Your task to perform on an android device: open app "HBO Max: Stream TV & Movies" Image 0: 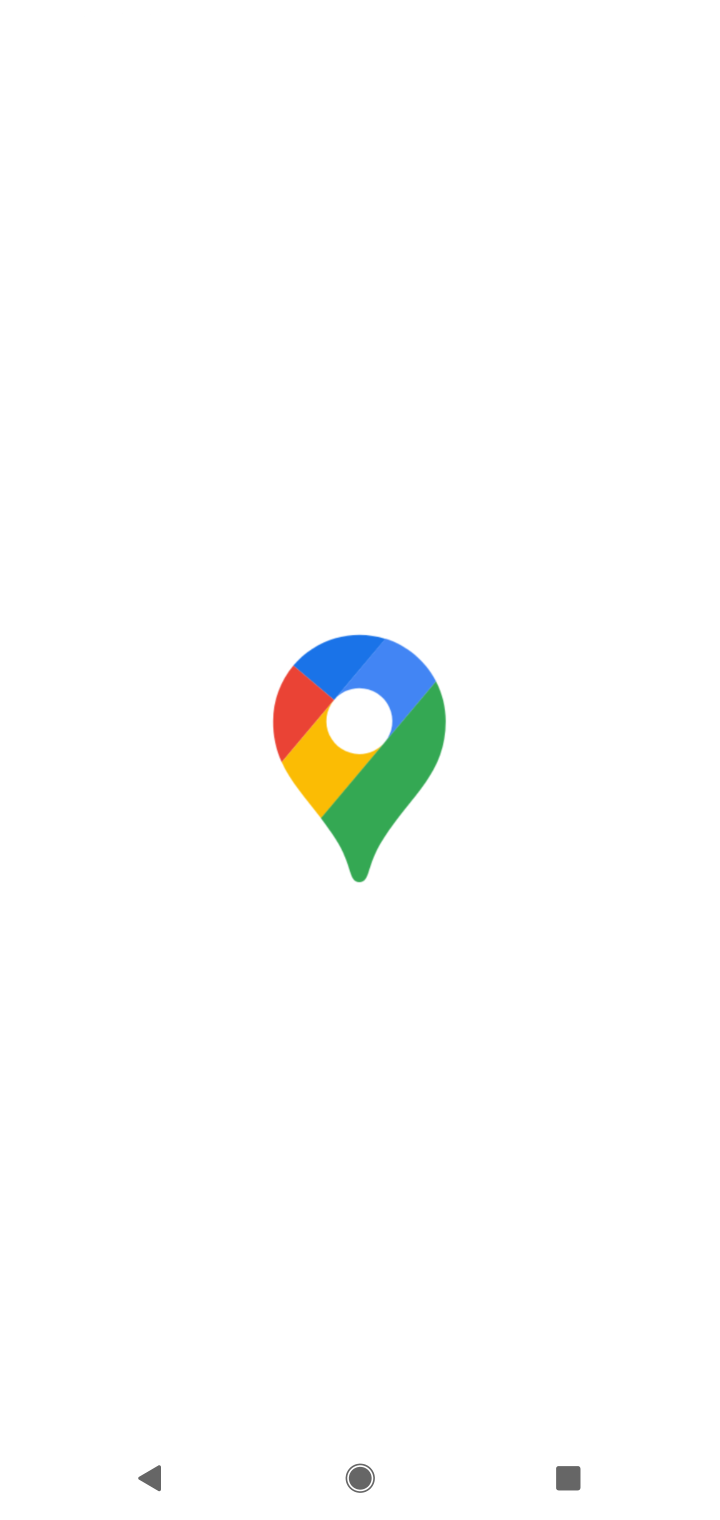
Step 0: press home button
Your task to perform on an android device: open app "HBO Max: Stream TV & Movies" Image 1: 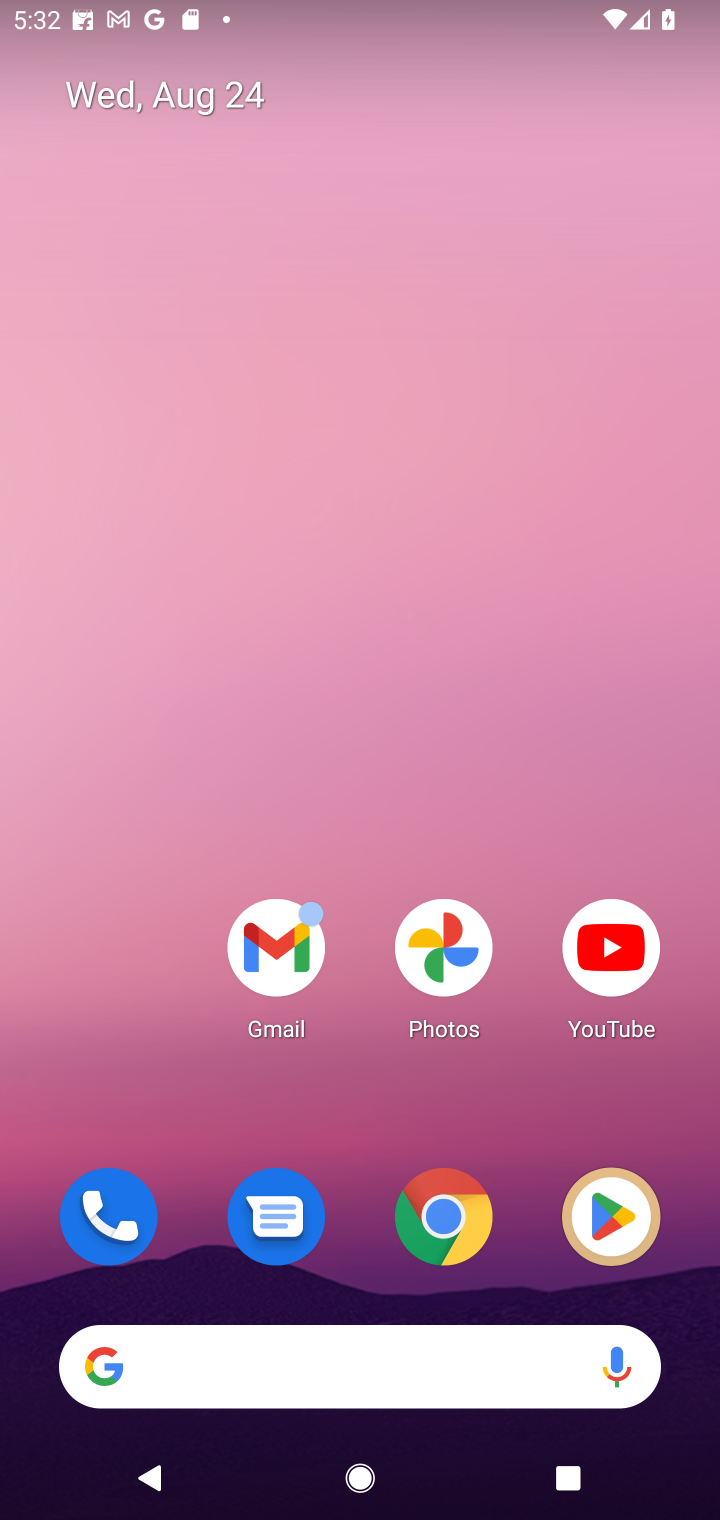
Step 1: click (596, 1198)
Your task to perform on an android device: open app "HBO Max: Stream TV & Movies" Image 2: 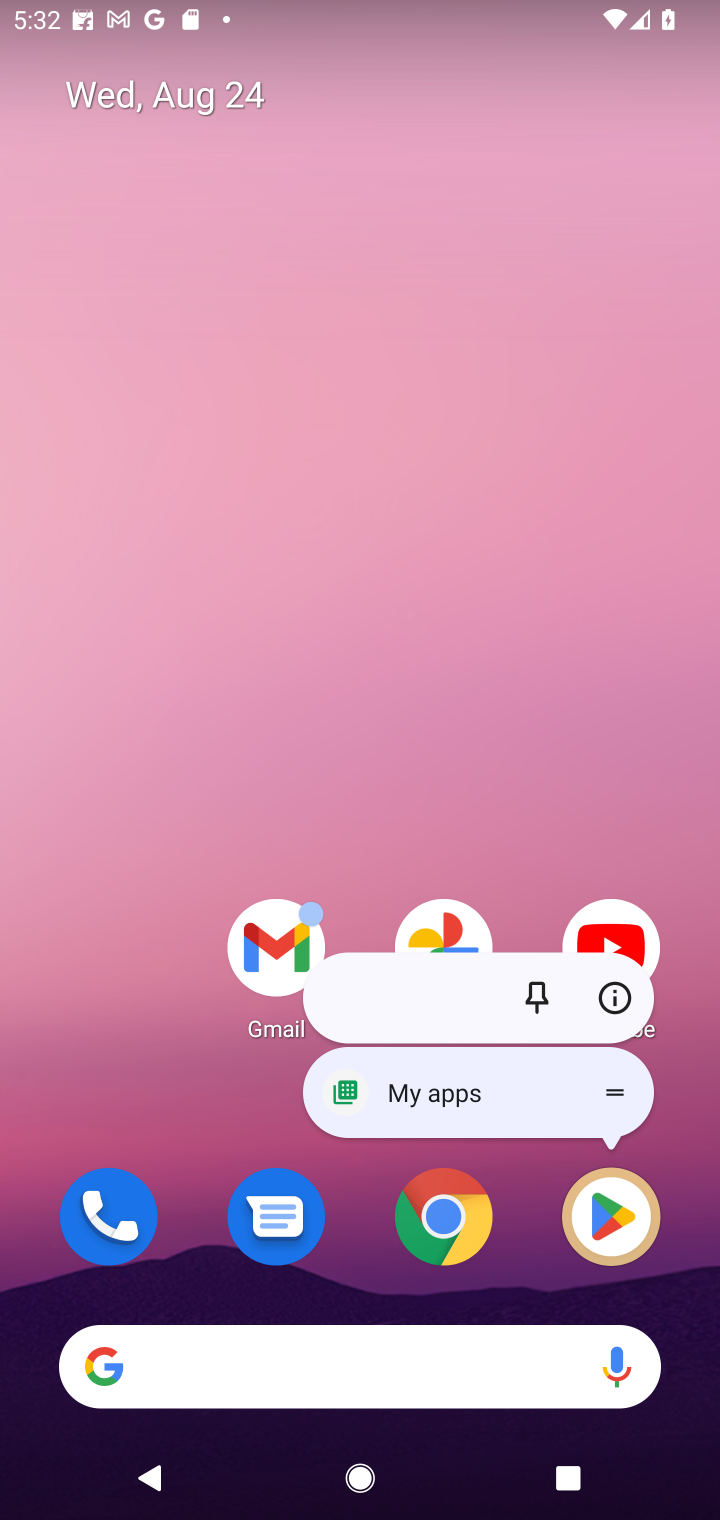
Step 2: click (609, 1224)
Your task to perform on an android device: open app "HBO Max: Stream TV & Movies" Image 3: 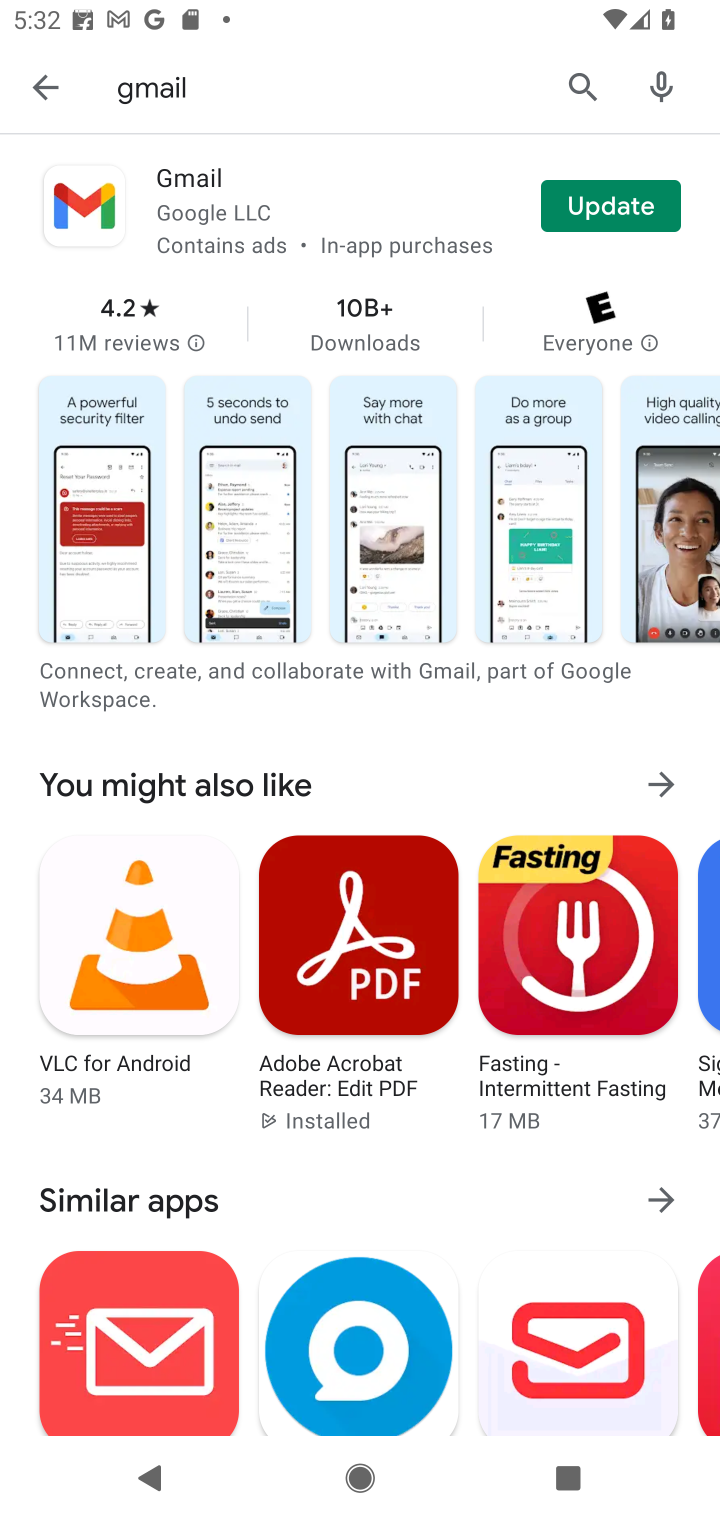
Step 3: click (566, 79)
Your task to perform on an android device: open app "HBO Max: Stream TV & Movies" Image 4: 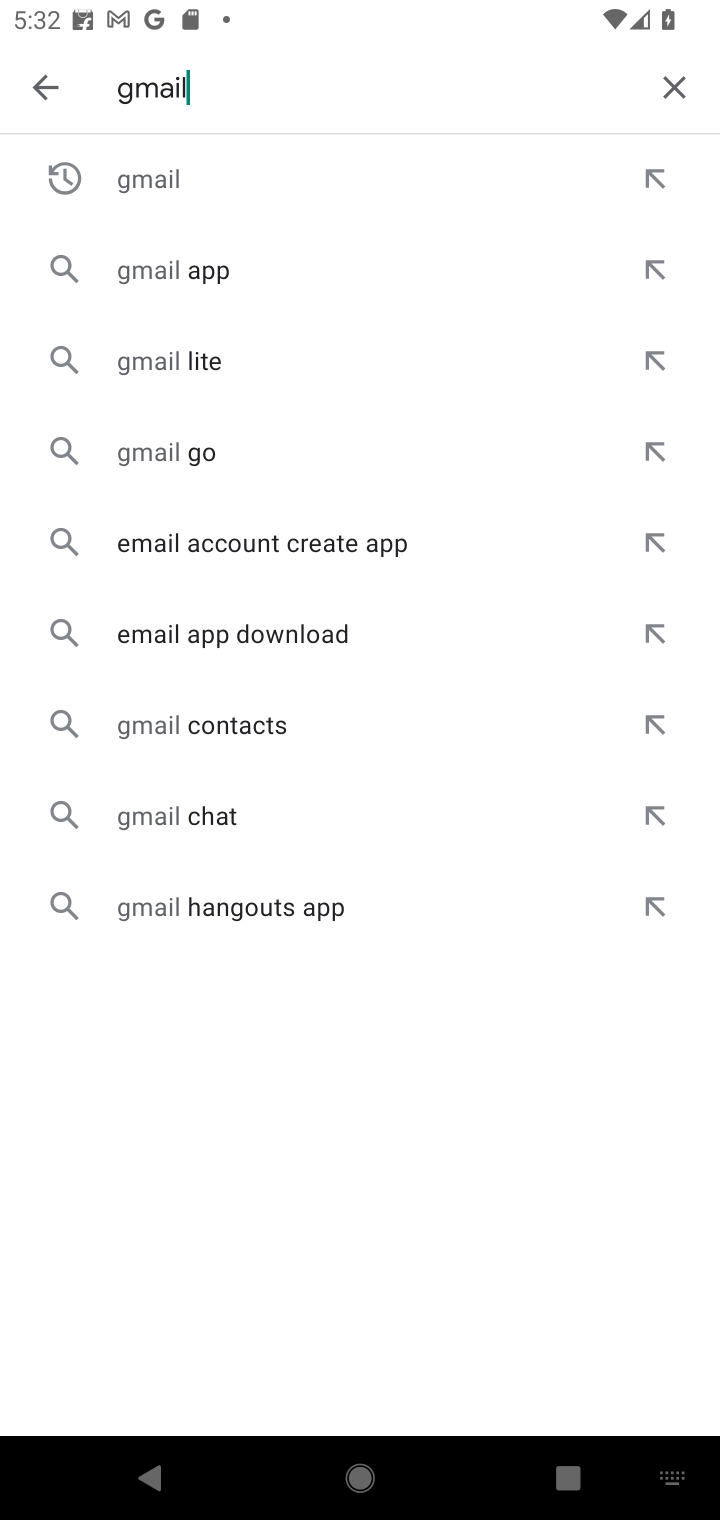
Step 4: click (664, 82)
Your task to perform on an android device: open app "HBO Max: Stream TV & Movies" Image 5: 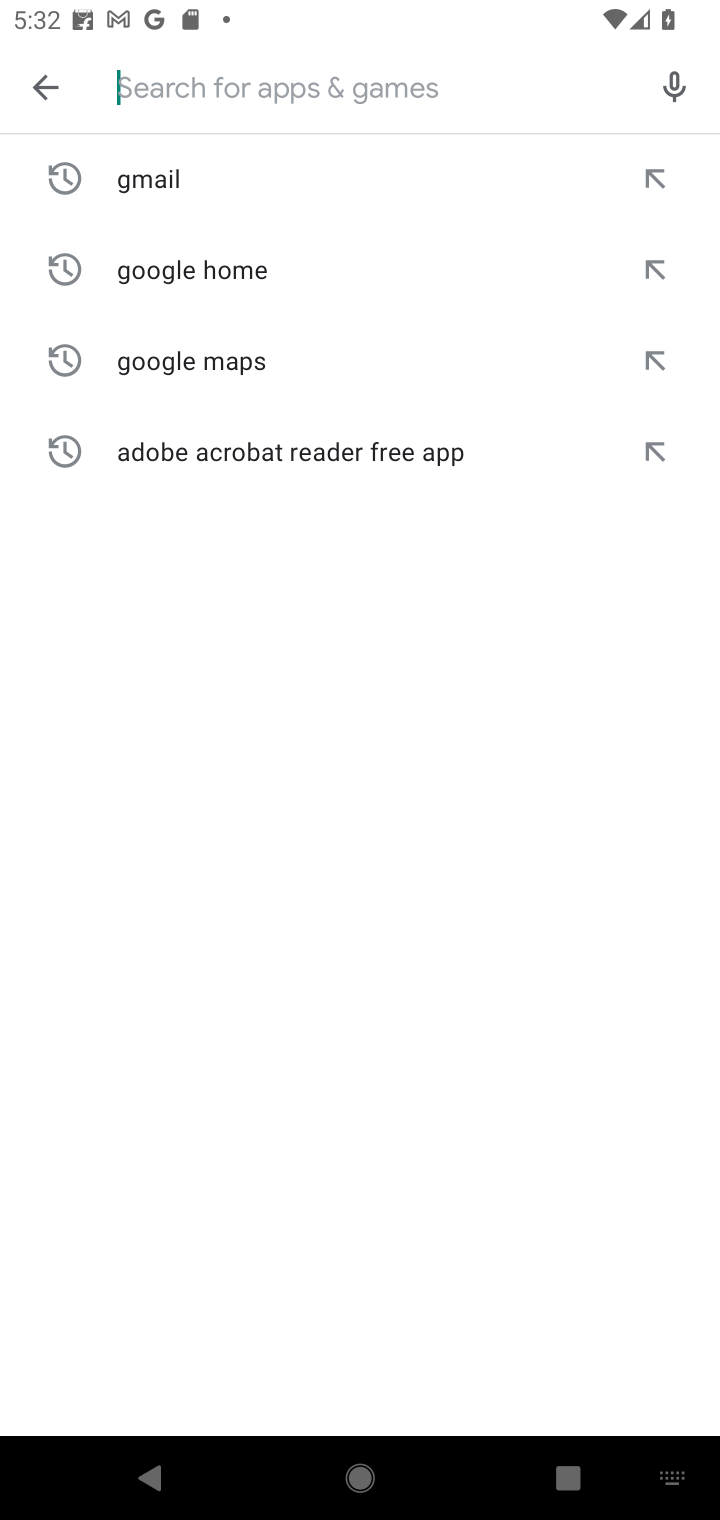
Step 5: type "HBO Max: Stream TV & Movies"
Your task to perform on an android device: open app "HBO Max: Stream TV & Movies" Image 6: 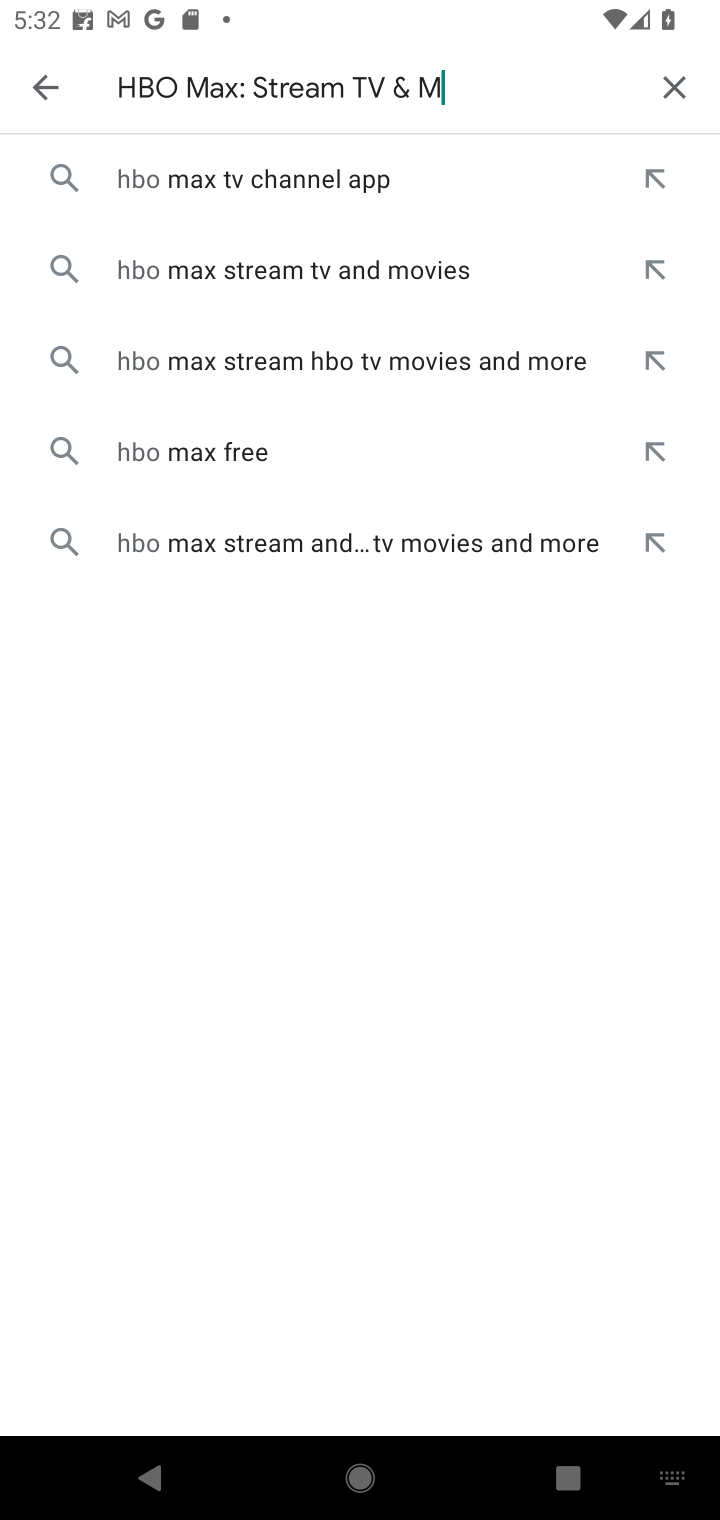
Step 6: type ""
Your task to perform on an android device: open app "HBO Max: Stream TV & Movies" Image 7: 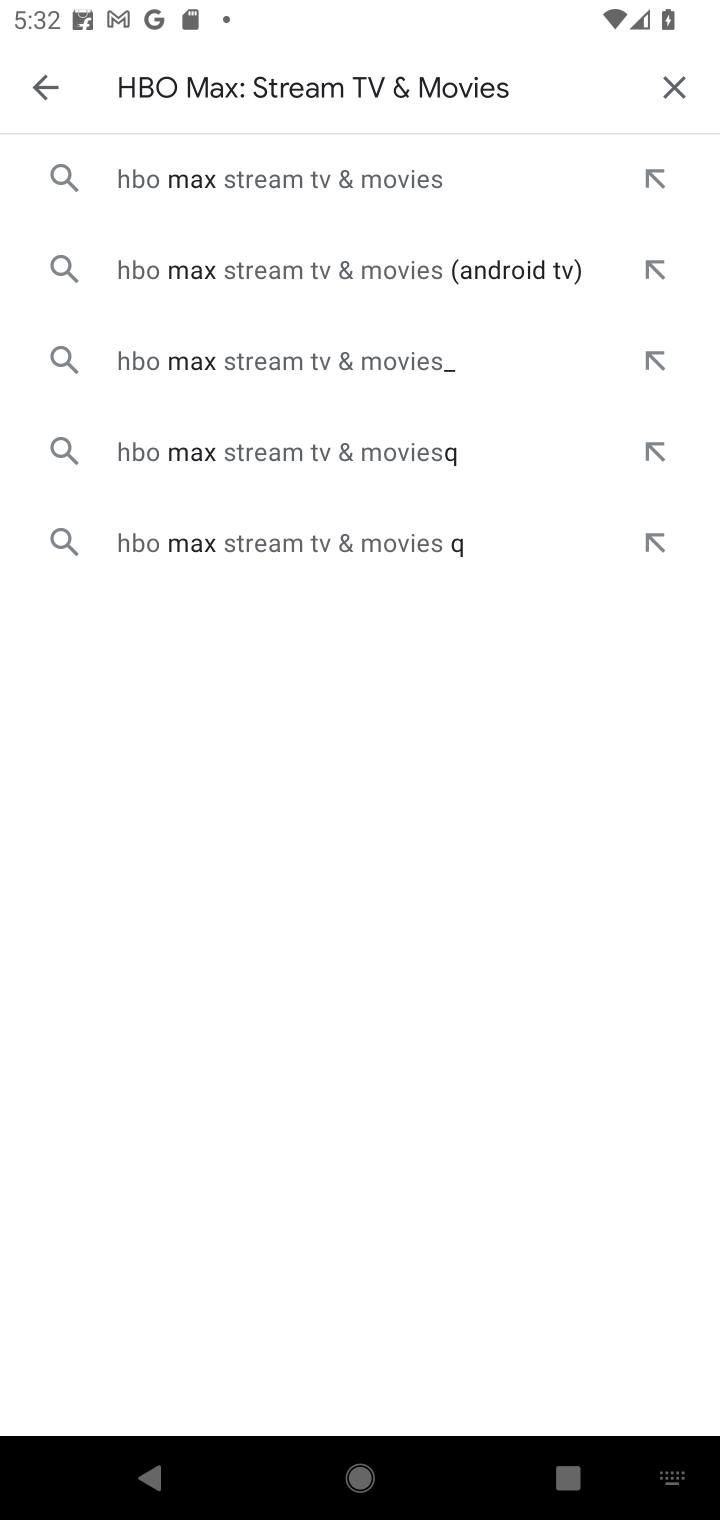
Step 7: click (249, 190)
Your task to perform on an android device: open app "HBO Max: Stream TV & Movies" Image 8: 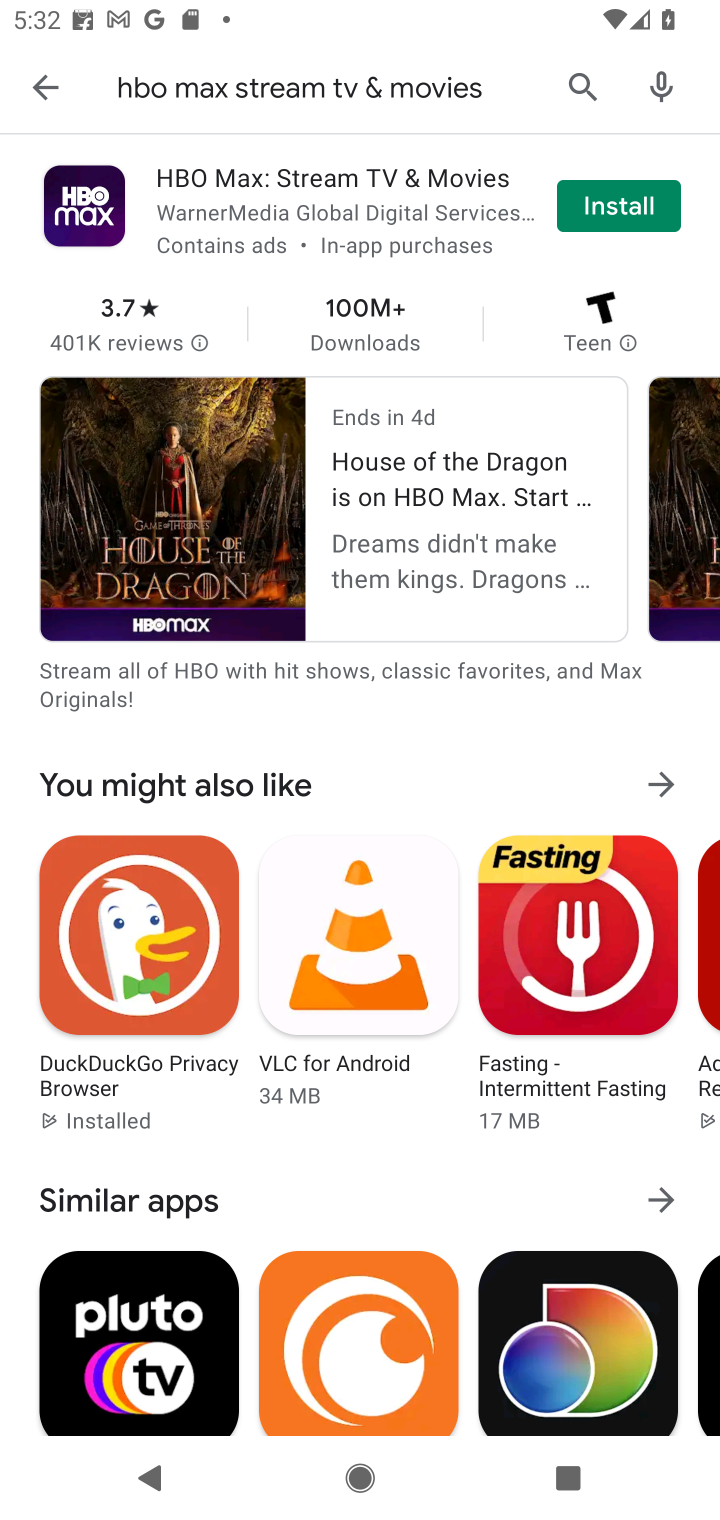
Step 8: click (278, 233)
Your task to perform on an android device: open app "HBO Max: Stream TV & Movies" Image 9: 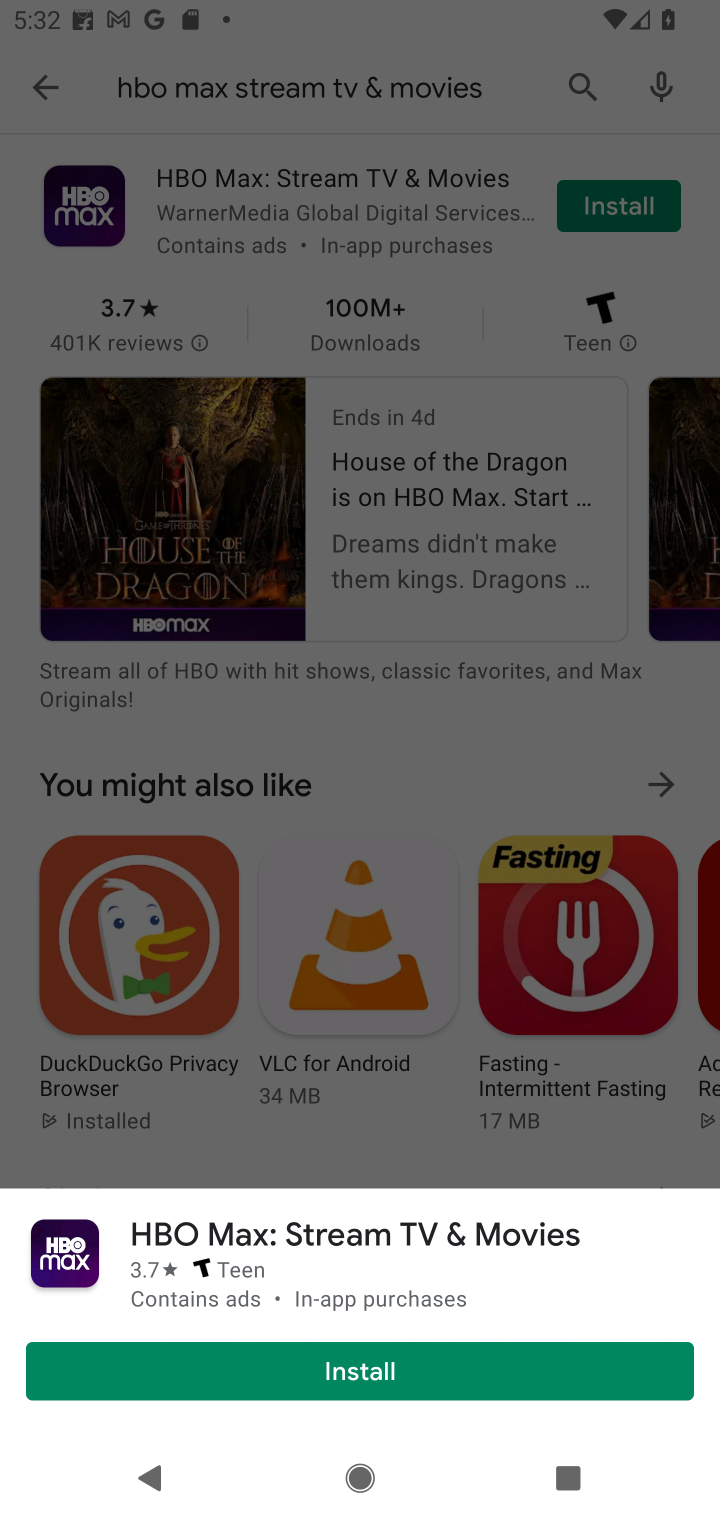
Step 9: task complete